Your task to perform on an android device: Go to accessibility settings Image 0: 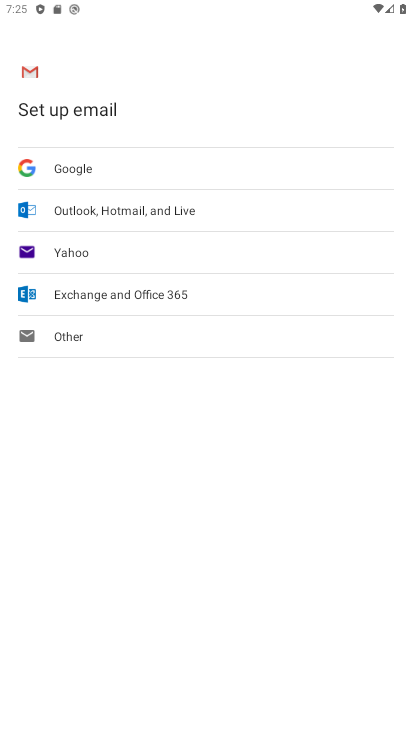
Step 0: press back button
Your task to perform on an android device: Go to accessibility settings Image 1: 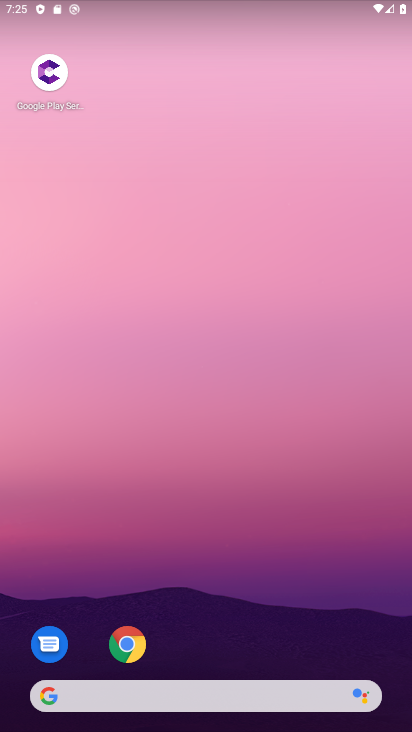
Step 1: drag from (272, 612) to (203, 145)
Your task to perform on an android device: Go to accessibility settings Image 2: 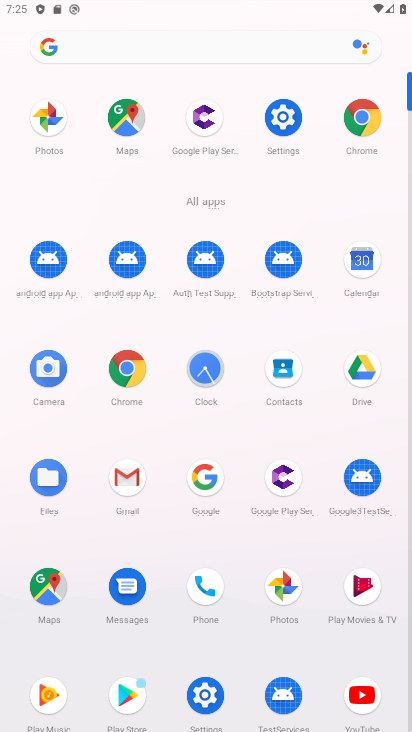
Step 2: click (283, 117)
Your task to perform on an android device: Go to accessibility settings Image 3: 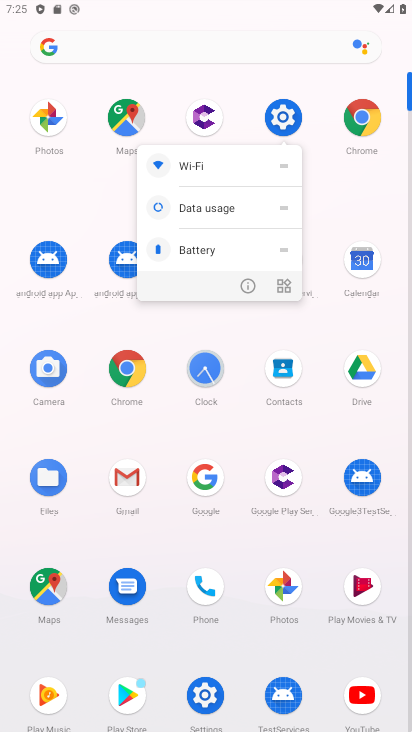
Step 3: click (283, 117)
Your task to perform on an android device: Go to accessibility settings Image 4: 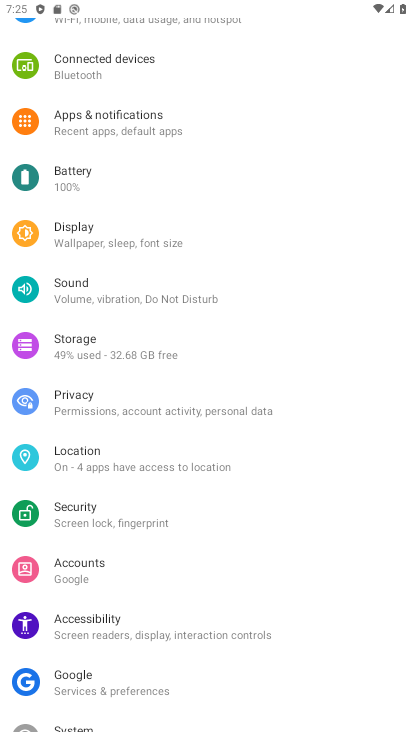
Step 4: drag from (208, 448) to (241, 360)
Your task to perform on an android device: Go to accessibility settings Image 5: 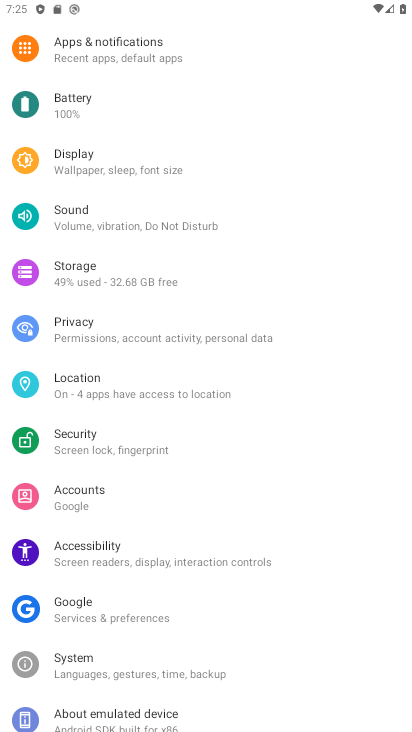
Step 5: drag from (169, 481) to (211, 426)
Your task to perform on an android device: Go to accessibility settings Image 6: 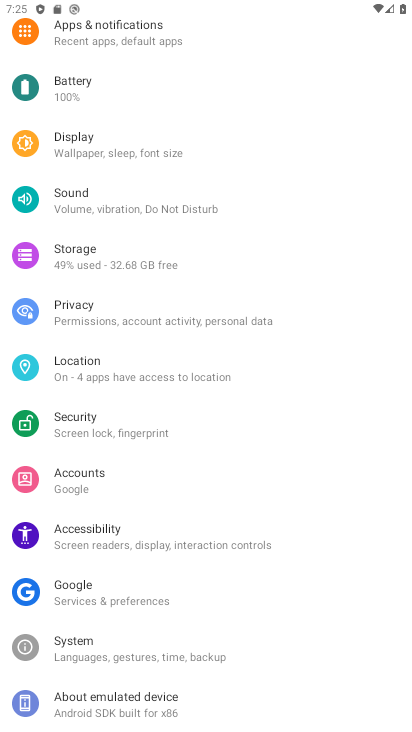
Step 6: click (141, 535)
Your task to perform on an android device: Go to accessibility settings Image 7: 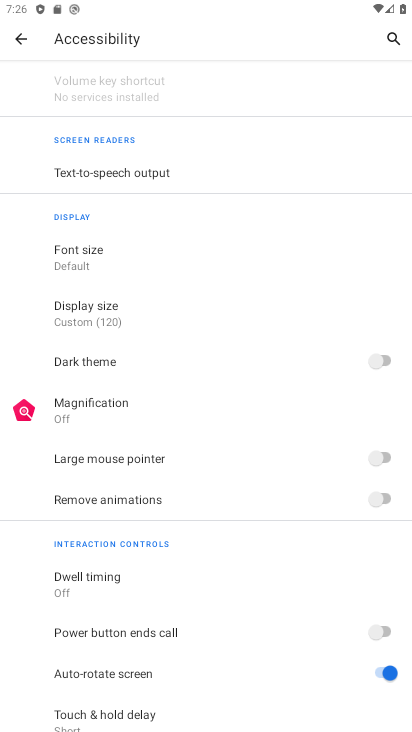
Step 7: task complete